Your task to perform on an android device: Go to settings Image 0: 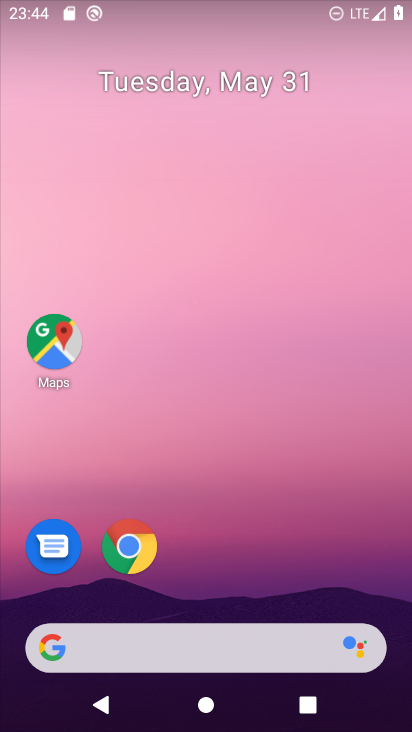
Step 0: drag from (376, 549) to (308, 72)
Your task to perform on an android device: Go to settings Image 1: 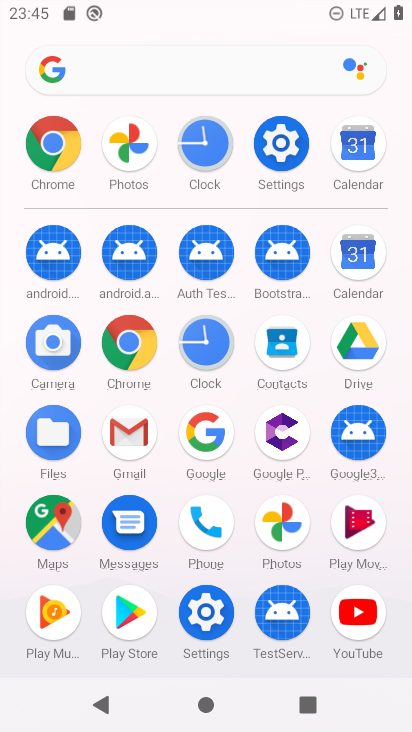
Step 1: click (204, 618)
Your task to perform on an android device: Go to settings Image 2: 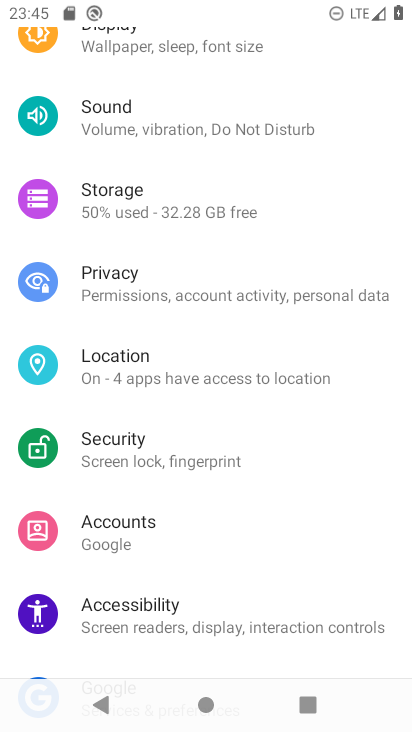
Step 2: task complete